Your task to perform on an android device: turn on the 24-hour format for clock Image 0: 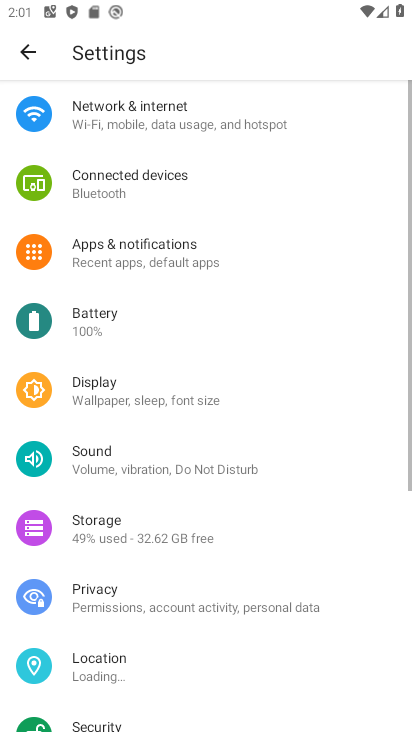
Step 0: press home button
Your task to perform on an android device: turn on the 24-hour format for clock Image 1: 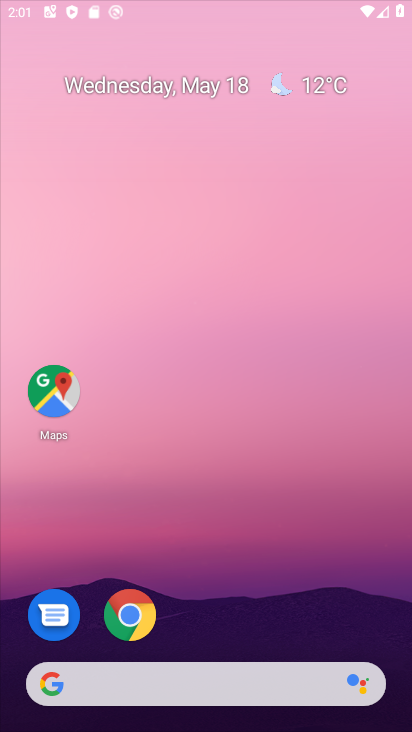
Step 1: drag from (347, 640) to (312, 46)
Your task to perform on an android device: turn on the 24-hour format for clock Image 2: 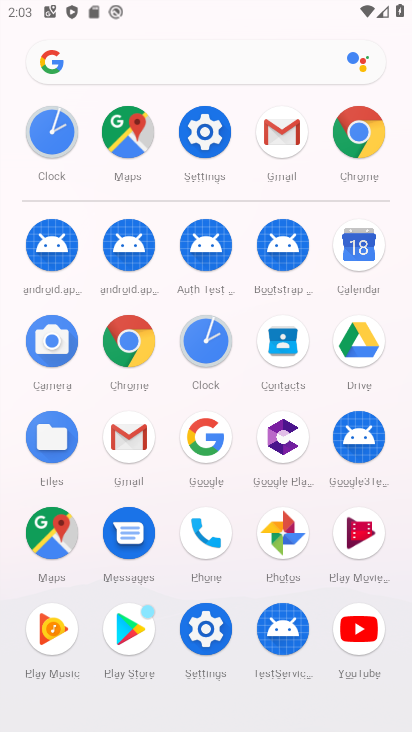
Step 2: click (215, 351)
Your task to perform on an android device: turn on the 24-hour format for clock Image 3: 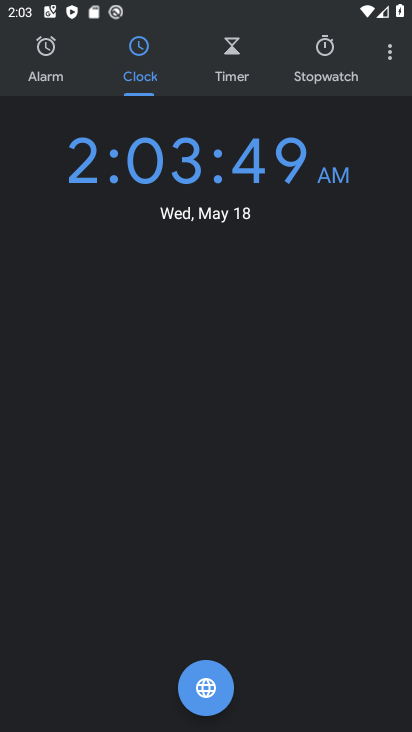
Step 3: click (383, 55)
Your task to perform on an android device: turn on the 24-hour format for clock Image 4: 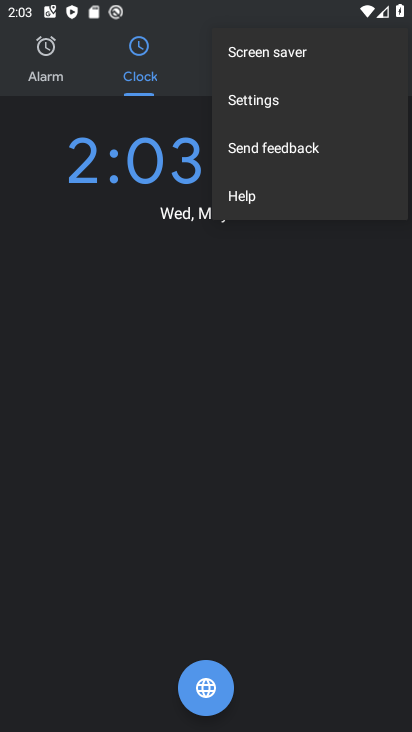
Step 4: click (319, 98)
Your task to perform on an android device: turn on the 24-hour format for clock Image 5: 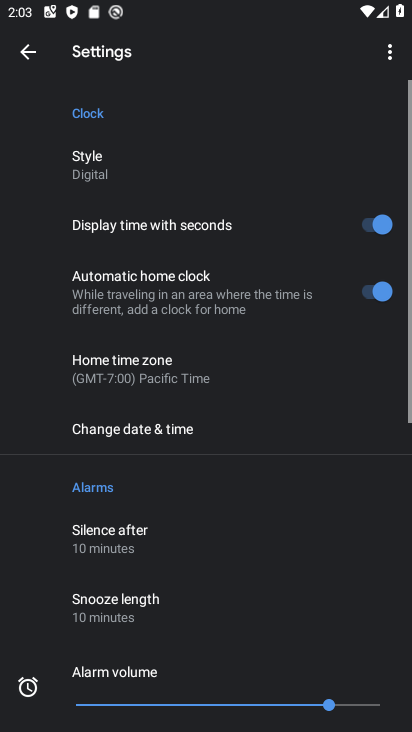
Step 5: click (161, 423)
Your task to perform on an android device: turn on the 24-hour format for clock Image 6: 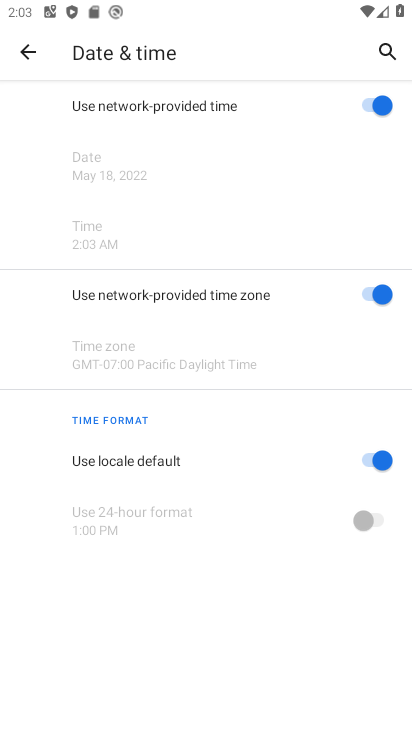
Step 6: task complete